Your task to perform on an android device: see sites visited before in the chrome app Image 0: 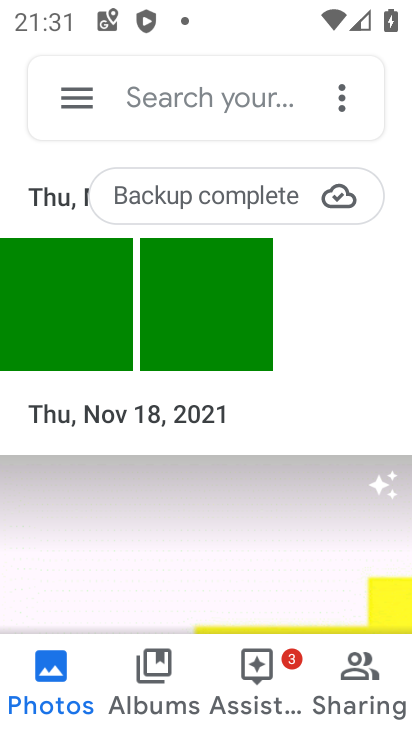
Step 0: press home button
Your task to perform on an android device: see sites visited before in the chrome app Image 1: 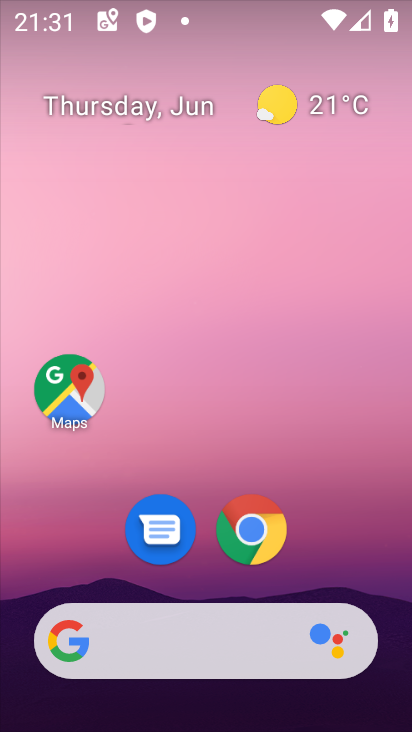
Step 1: click (259, 533)
Your task to perform on an android device: see sites visited before in the chrome app Image 2: 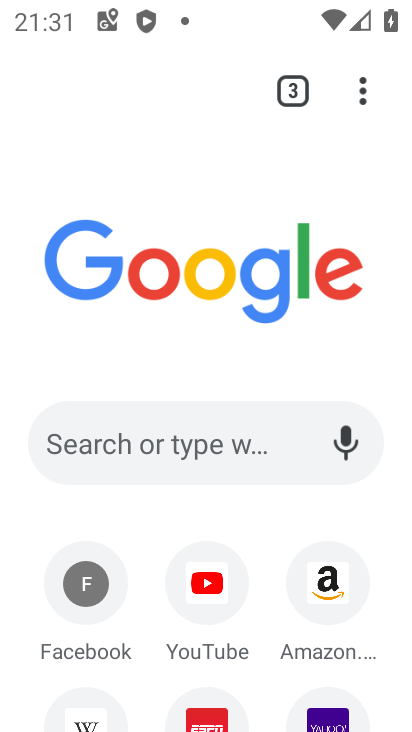
Step 2: click (361, 90)
Your task to perform on an android device: see sites visited before in the chrome app Image 3: 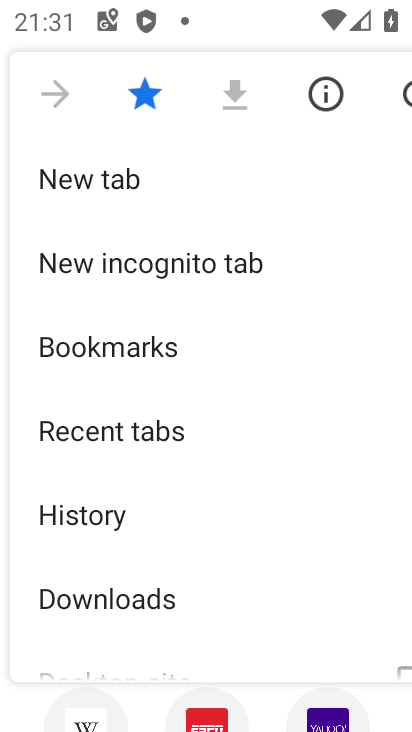
Step 3: click (98, 520)
Your task to perform on an android device: see sites visited before in the chrome app Image 4: 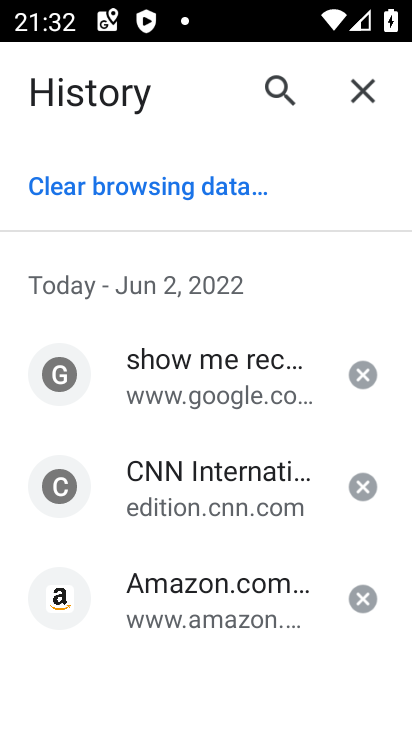
Step 4: task complete